Your task to perform on an android device: turn pop-ups on in chrome Image 0: 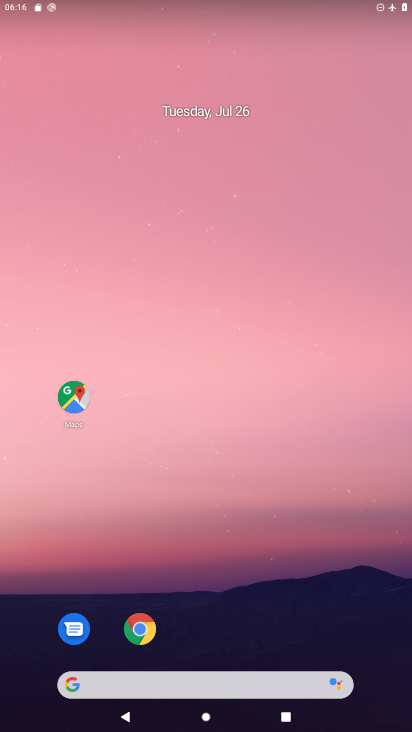
Step 0: drag from (200, 634) to (127, 630)
Your task to perform on an android device: turn pop-ups on in chrome Image 1: 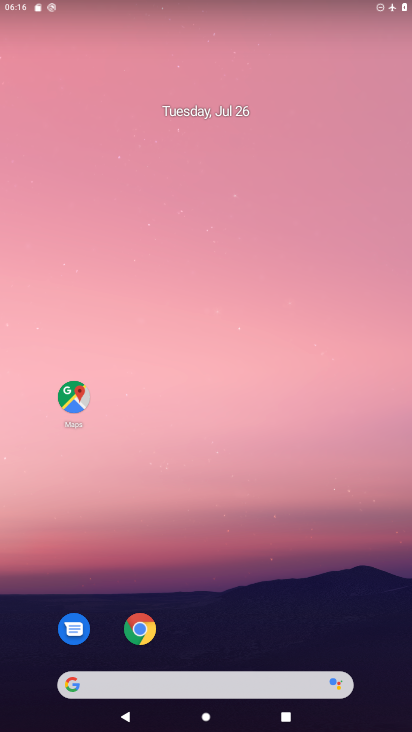
Step 1: click (127, 630)
Your task to perform on an android device: turn pop-ups on in chrome Image 2: 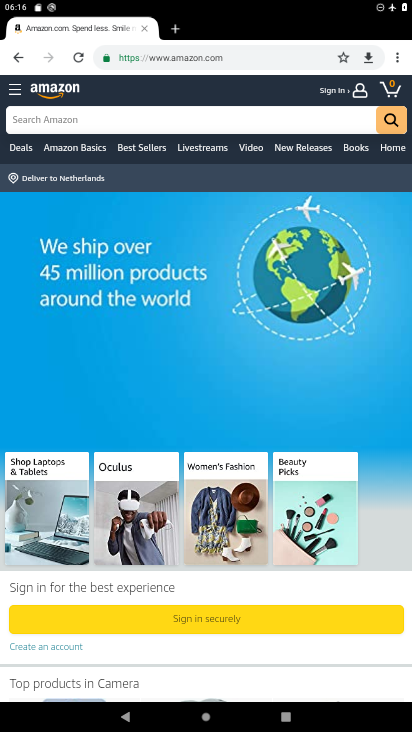
Step 2: click (393, 62)
Your task to perform on an android device: turn pop-ups on in chrome Image 3: 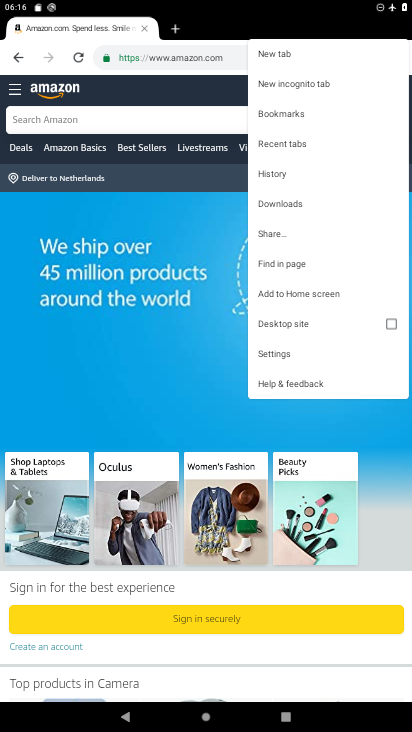
Step 3: click (274, 351)
Your task to perform on an android device: turn pop-ups on in chrome Image 4: 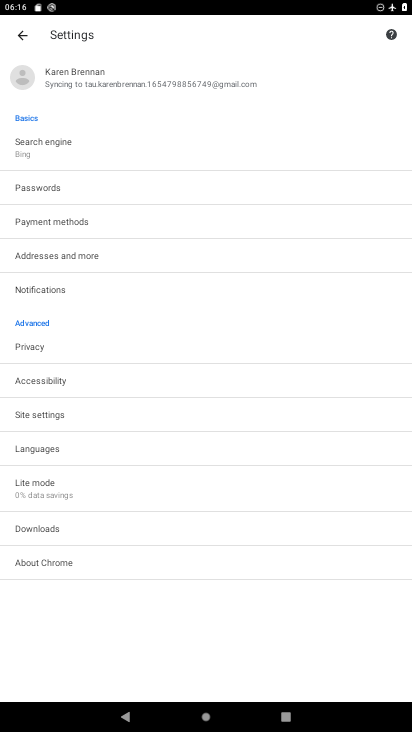
Step 4: click (46, 411)
Your task to perform on an android device: turn pop-ups on in chrome Image 5: 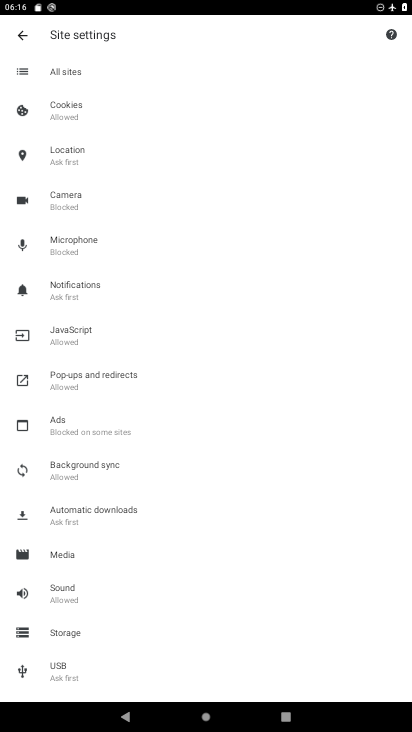
Step 5: click (91, 380)
Your task to perform on an android device: turn pop-ups on in chrome Image 6: 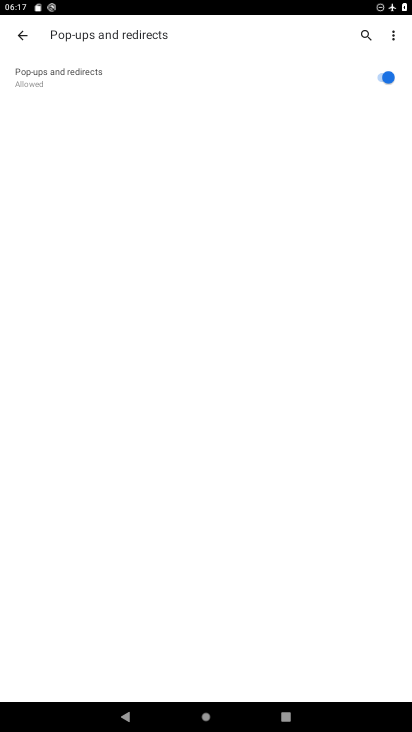
Step 6: task complete